Your task to perform on an android device: check data usage Image 0: 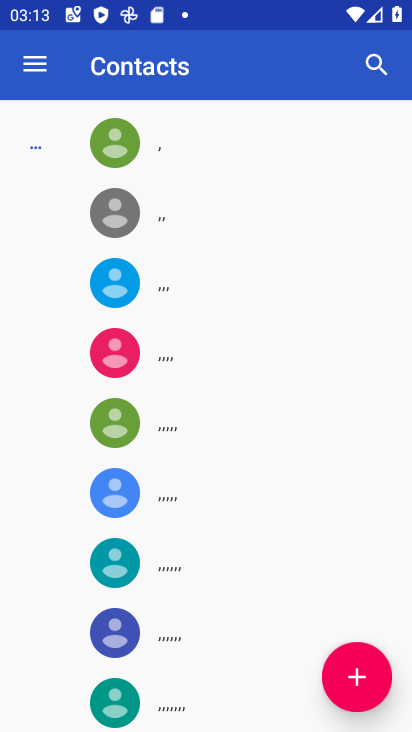
Step 0: press home button
Your task to perform on an android device: check data usage Image 1: 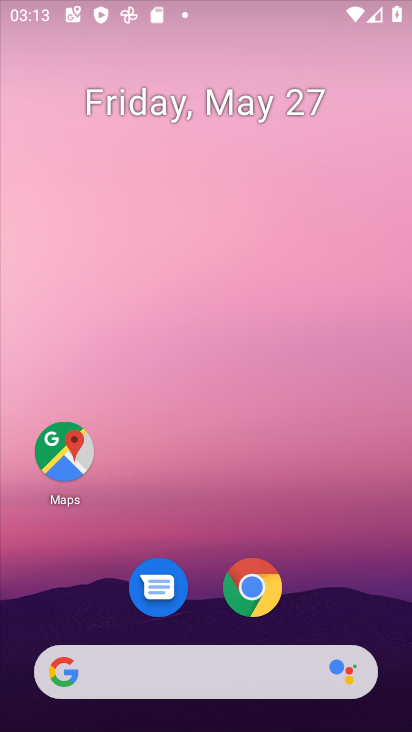
Step 1: drag from (328, 541) to (283, 137)
Your task to perform on an android device: check data usage Image 2: 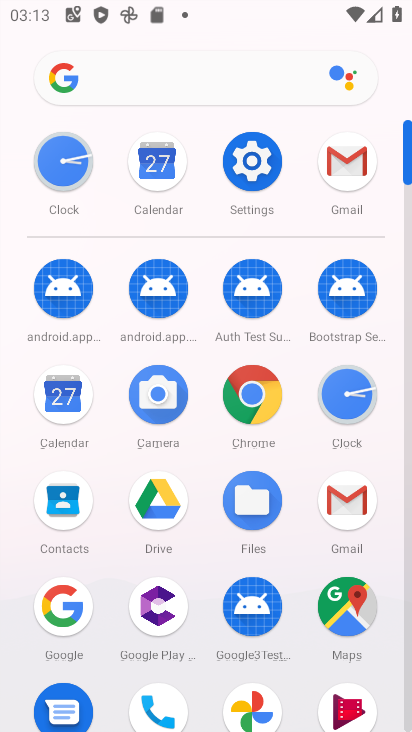
Step 2: click (269, 165)
Your task to perform on an android device: check data usage Image 3: 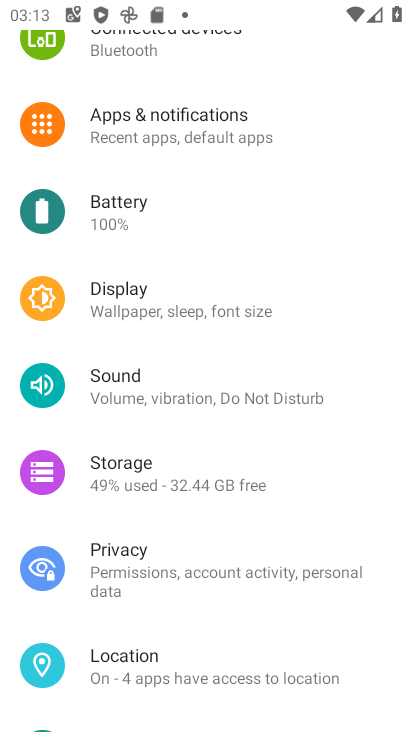
Step 3: drag from (272, 116) to (259, 521)
Your task to perform on an android device: check data usage Image 4: 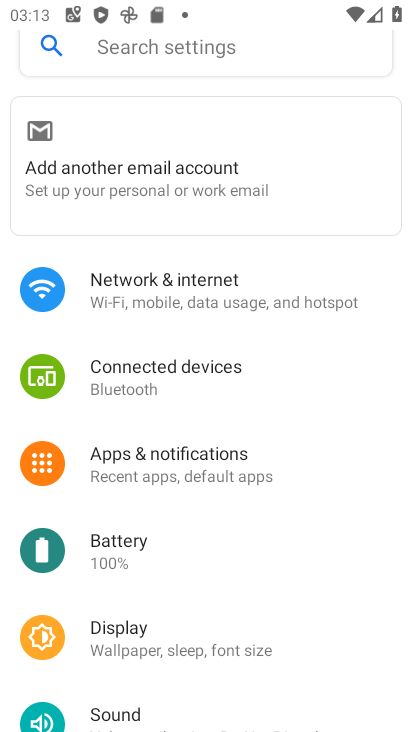
Step 4: click (155, 300)
Your task to perform on an android device: check data usage Image 5: 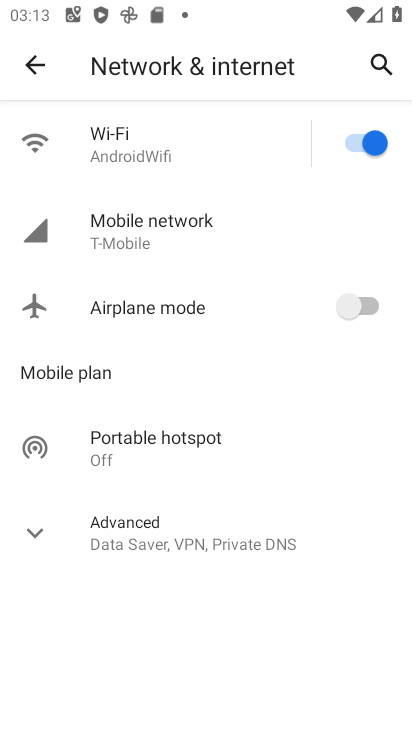
Step 5: click (131, 231)
Your task to perform on an android device: check data usage Image 6: 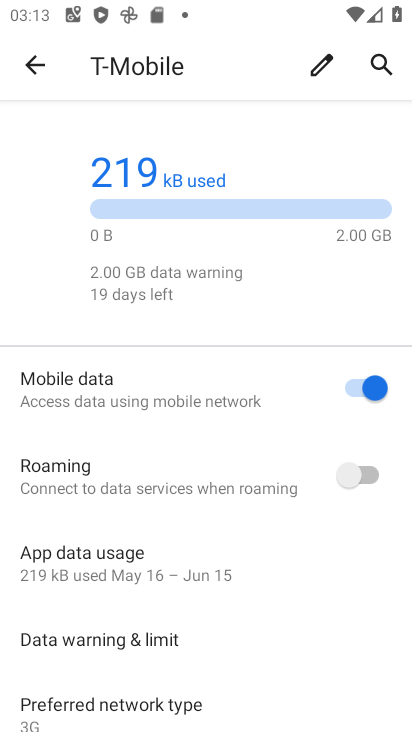
Step 6: task complete